Your task to perform on an android device: turn off data saver in the chrome app Image 0: 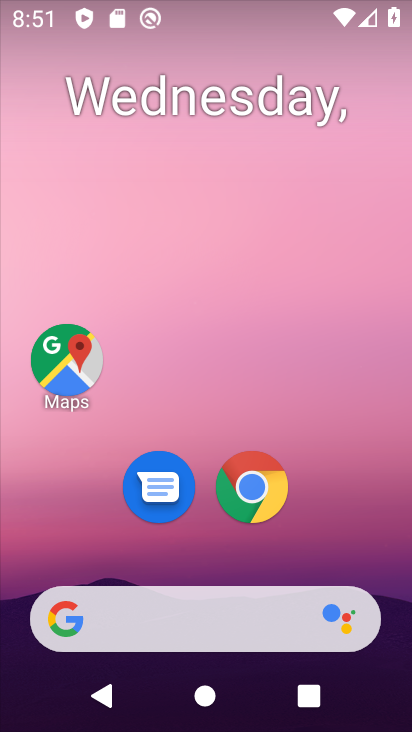
Step 0: click (258, 488)
Your task to perform on an android device: turn off data saver in the chrome app Image 1: 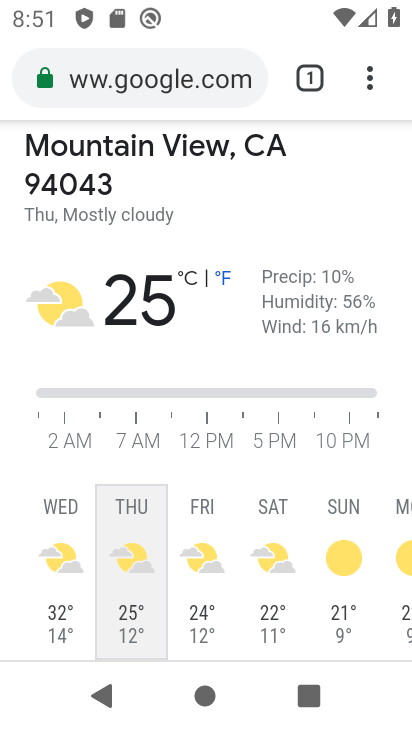
Step 1: click (373, 76)
Your task to perform on an android device: turn off data saver in the chrome app Image 2: 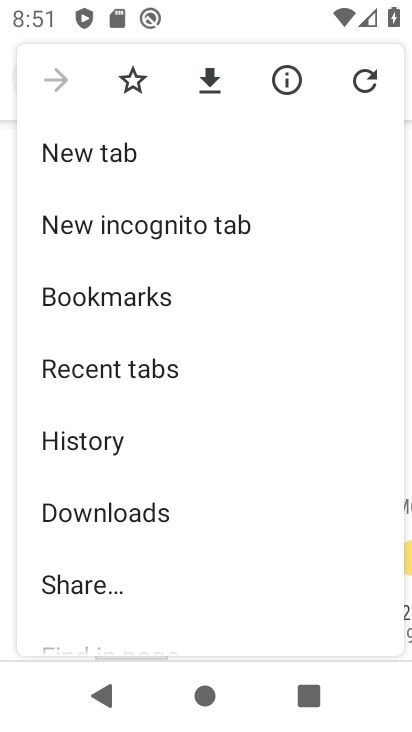
Step 2: drag from (199, 662) to (201, 273)
Your task to perform on an android device: turn off data saver in the chrome app Image 3: 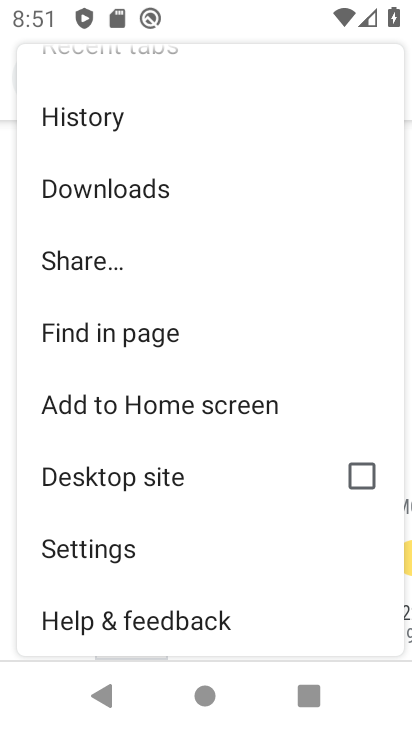
Step 3: click (153, 546)
Your task to perform on an android device: turn off data saver in the chrome app Image 4: 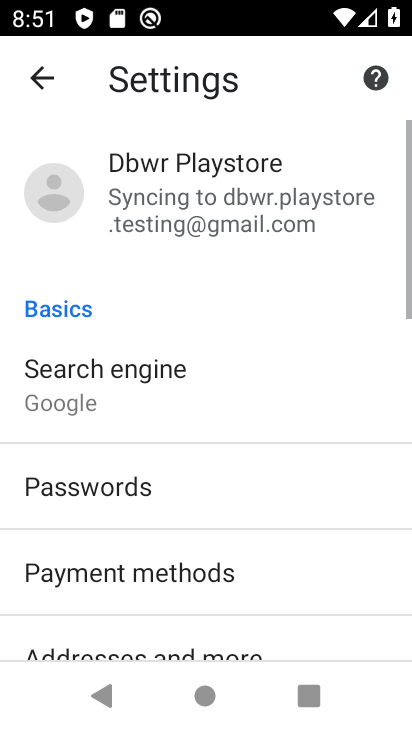
Step 4: drag from (219, 624) to (191, 205)
Your task to perform on an android device: turn off data saver in the chrome app Image 5: 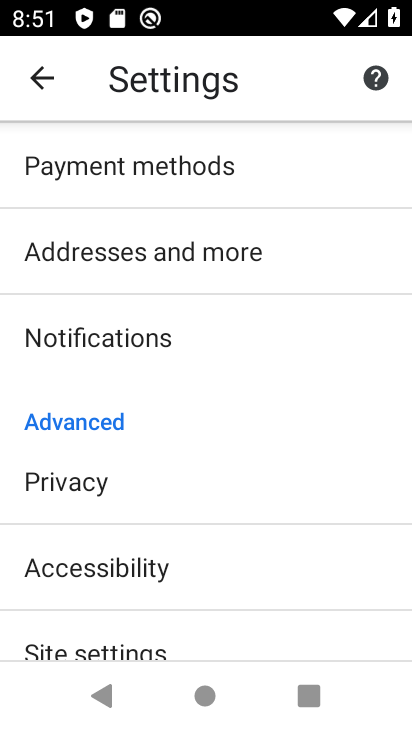
Step 5: drag from (275, 606) to (232, 180)
Your task to perform on an android device: turn off data saver in the chrome app Image 6: 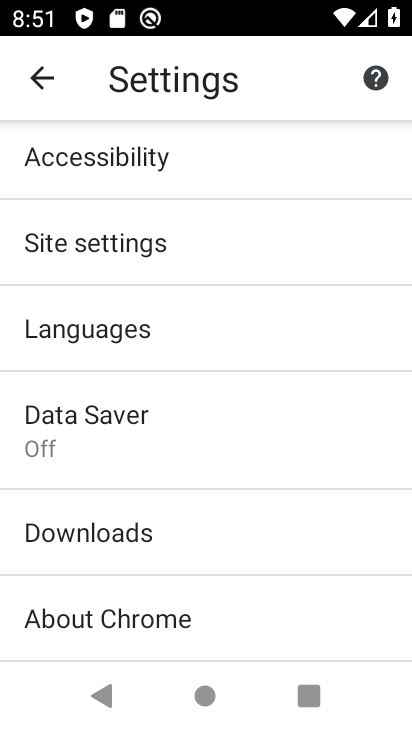
Step 6: click (206, 454)
Your task to perform on an android device: turn off data saver in the chrome app Image 7: 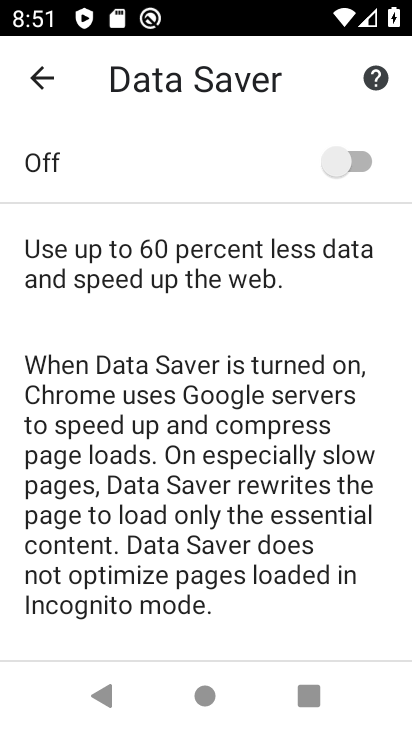
Step 7: task complete